Your task to perform on an android device: Go to calendar. Show me events next week Image 0: 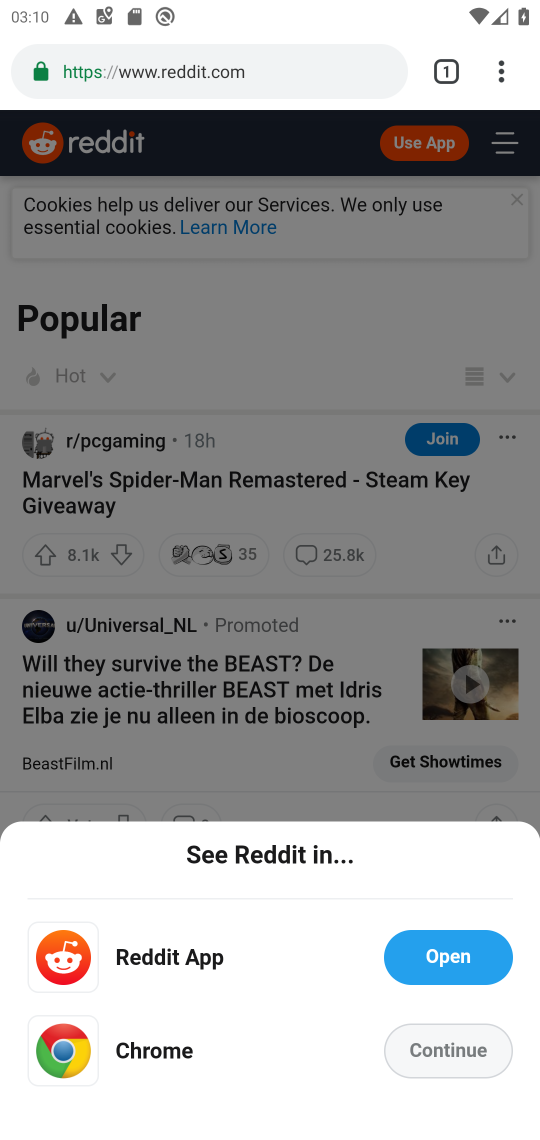
Step 0: press home button
Your task to perform on an android device: Go to calendar. Show me events next week Image 1: 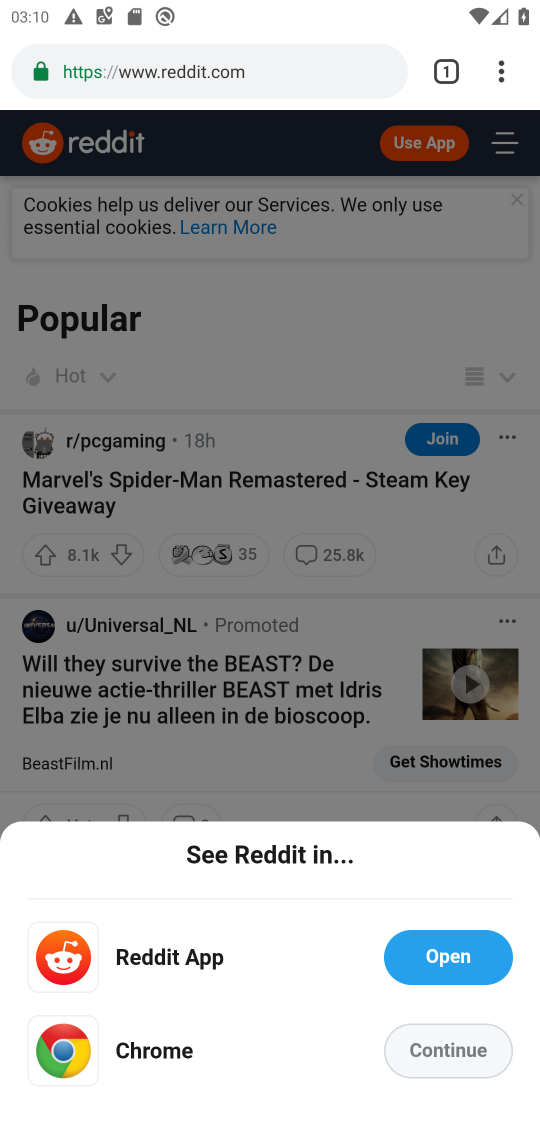
Step 1: press home button
Your task to perform on an android device: Go to calendar. Show me events next week Image 2: 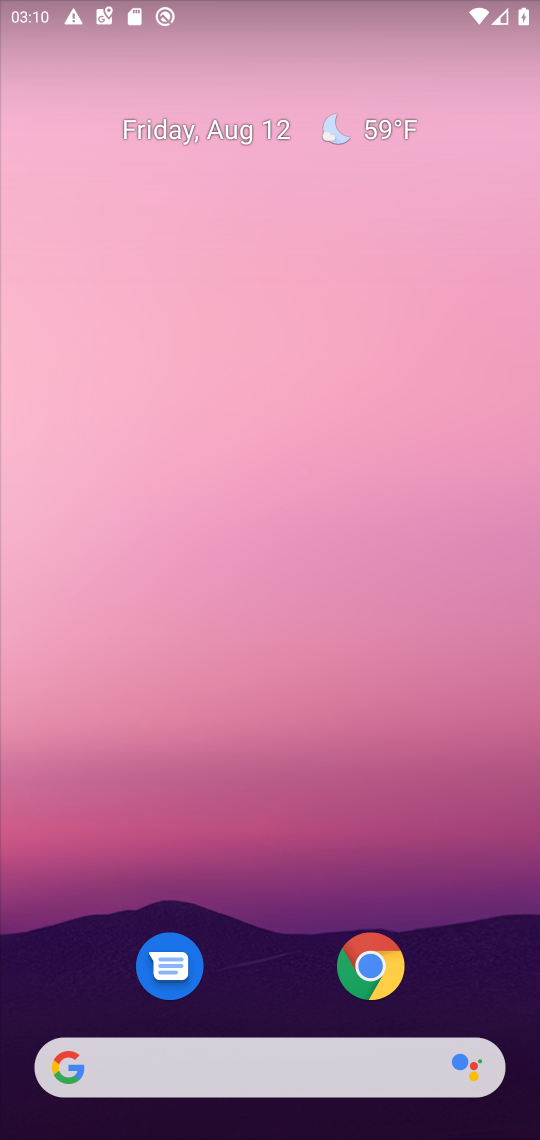
Step 2: click (249, 878)
Your task to perform on an android device: Go to calendar. Show me events next week Image 3: 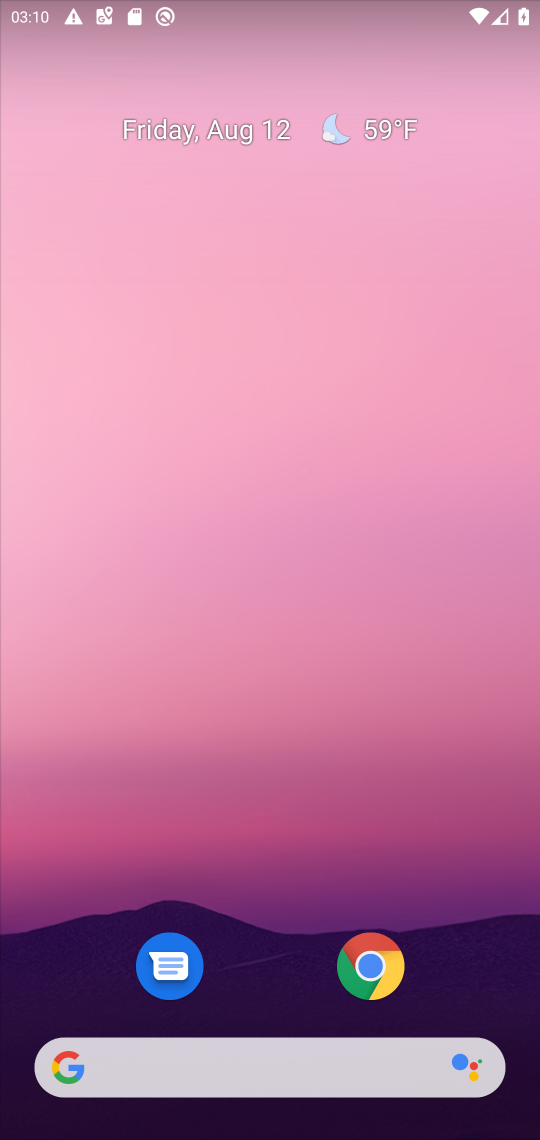
Step 3: click (211, 127)
Your task to perform on an android device: Go to calendar. Show me events next week Image 4: 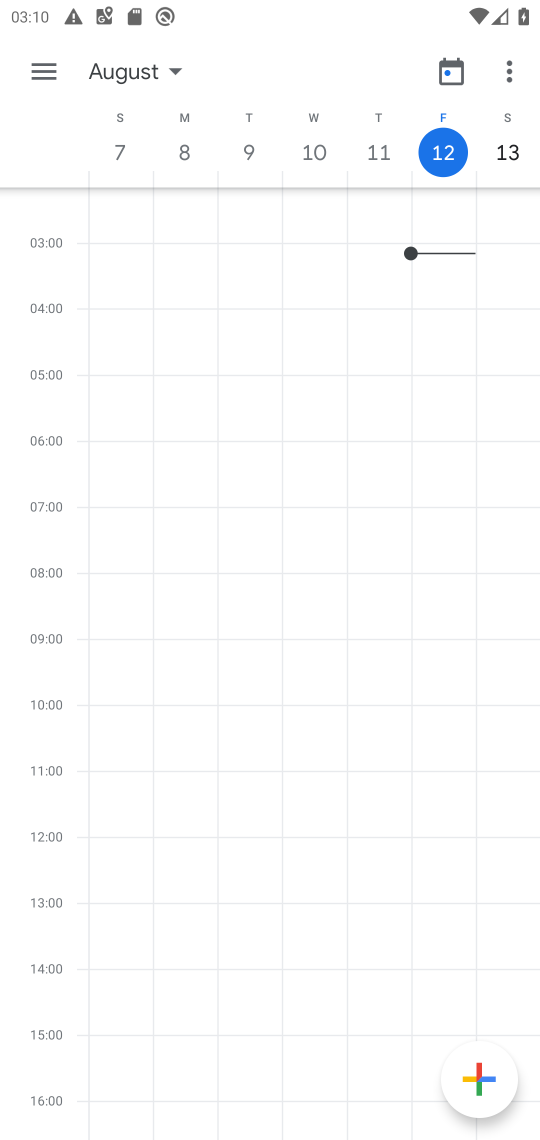
Step 4: click (146, 72)
Your task to perform on an android device: Go to calendar. Show me events next week Image 5: 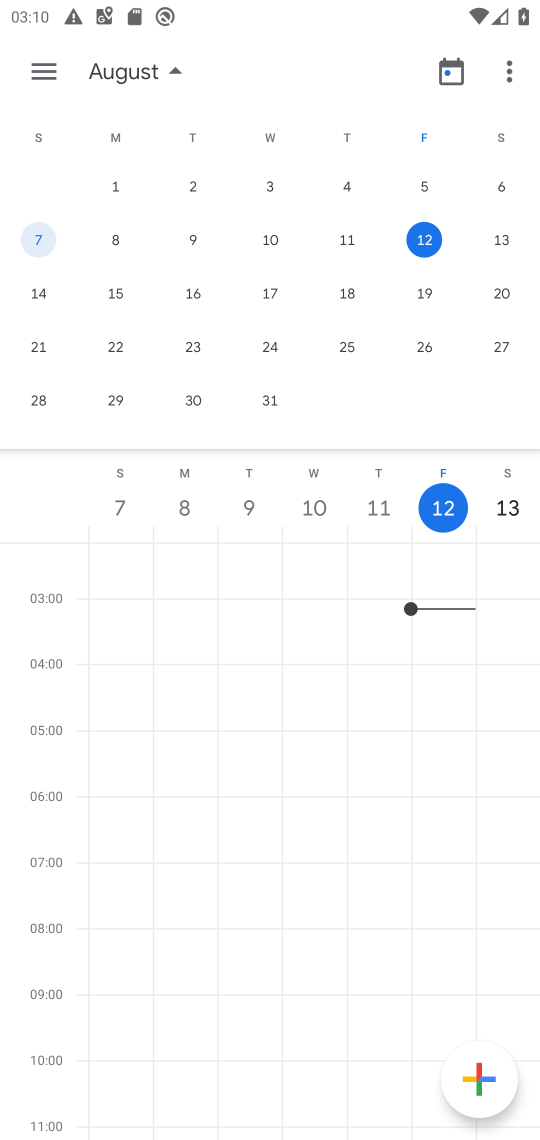
Step 5: click (322, 297)
Your task to perform on an android device: Go to calendar. Show me events next week Image 6: 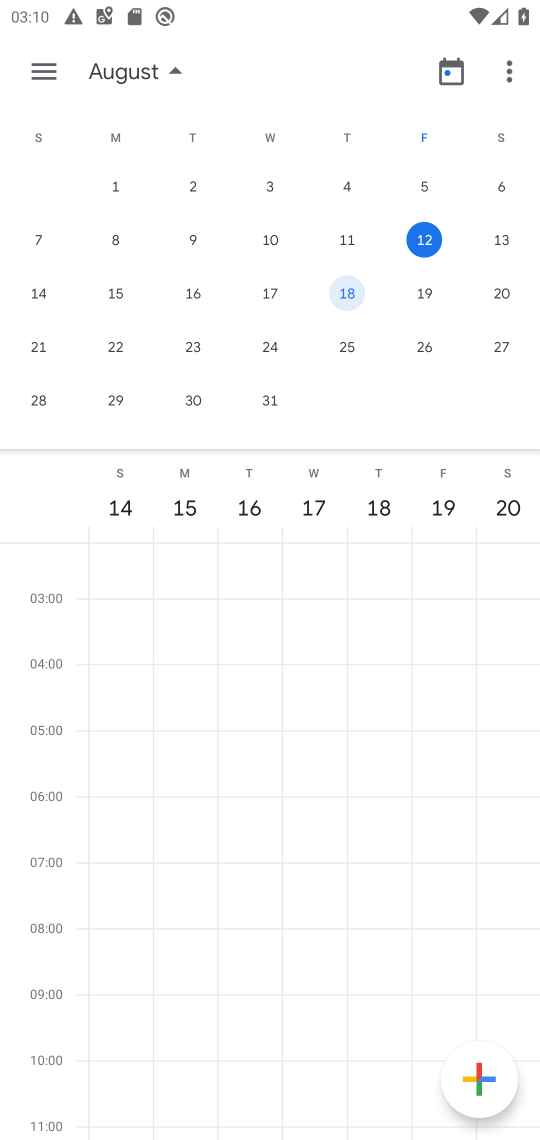
Step 6: task complete